Your task to perform on an android device: turn vacation reply on in the gmail app Image 0: 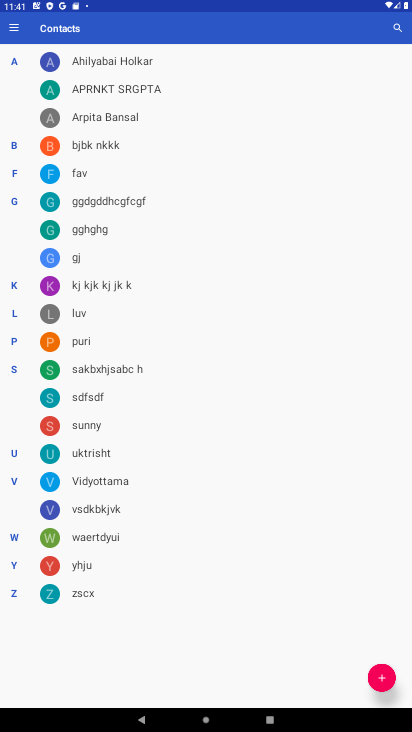
Step 0: press home button
Your task to perform on an android device: turn vacation reply on in the gmail app Image 1: 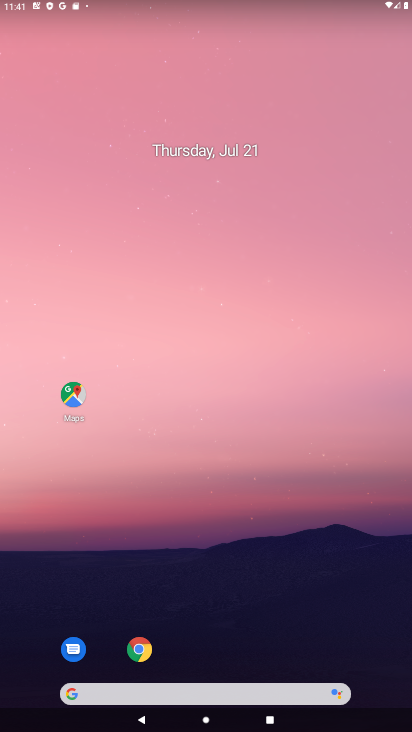
Step 1: drag from (228, 709) to (222, 243)
Your task to perform on an android device: turn vacation reply on in the gmail app Image 2: 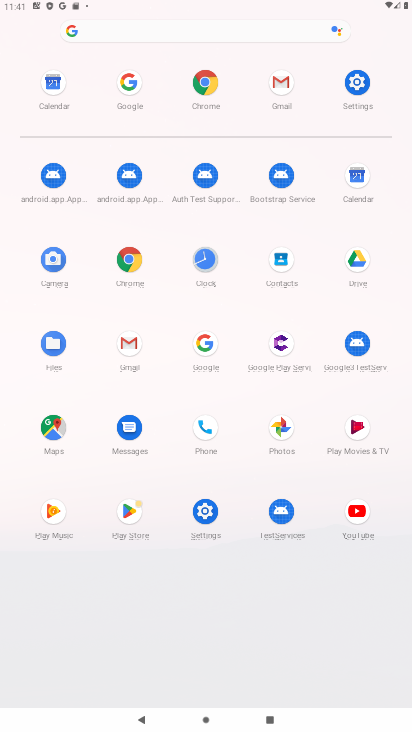
Step 2: click (132, 341)
Your task to perform on an android device: turn vacation reply on in the gmail app Image 3: 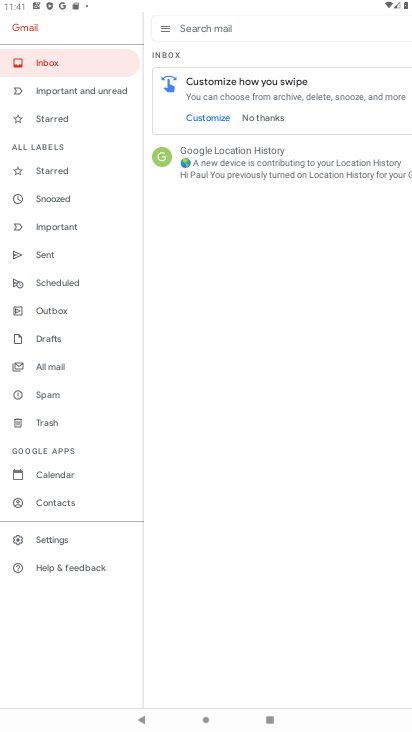
Step 3: click (54, 539)
Your task to perform on an android device: turn vacation reply on in the gmail app Image 4: 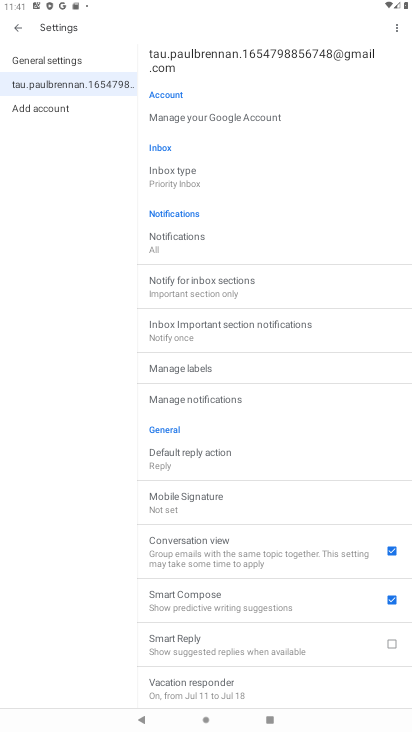
Step 4: click (211, 692)
Your task to perform on an android device: turn vacation reply on in the gmail app Image 5: 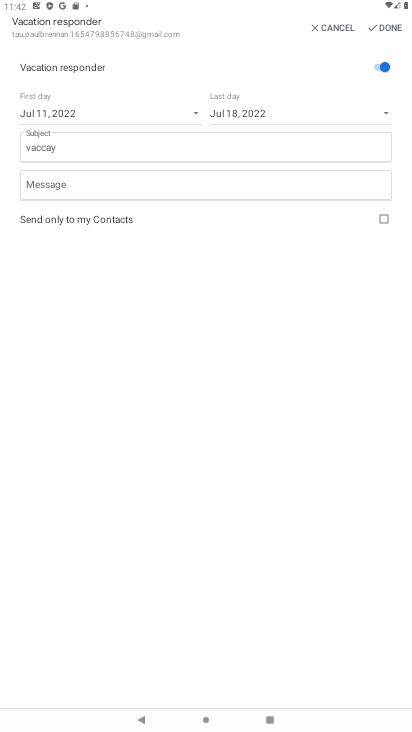
Step 5: task complete